Your task to perform on an android device: refresh tabs in the chrome app Image 0: 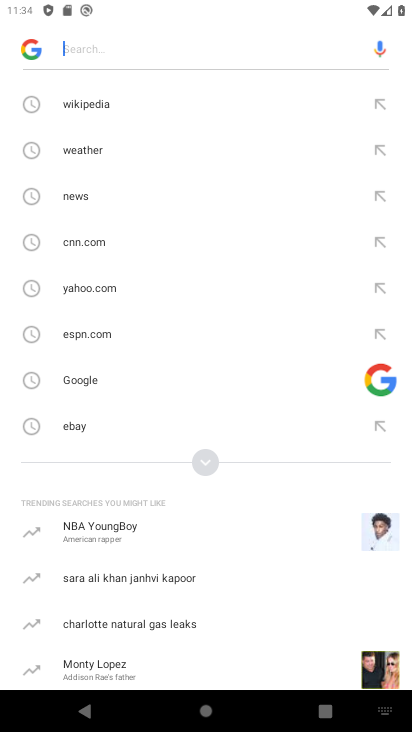
Step 0: press home button
Your task to perform on an android device: refresh tabs in the chrome app Image 1: 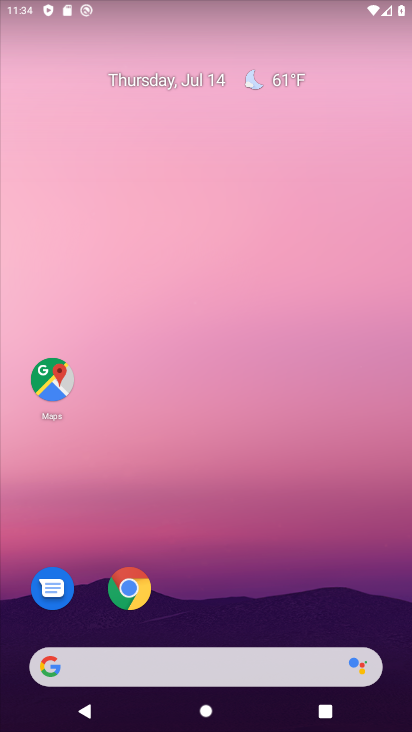
Step 1: click (132, 589)
Your task to perform on an android device: refresh tabs in the chrome app Image 2: 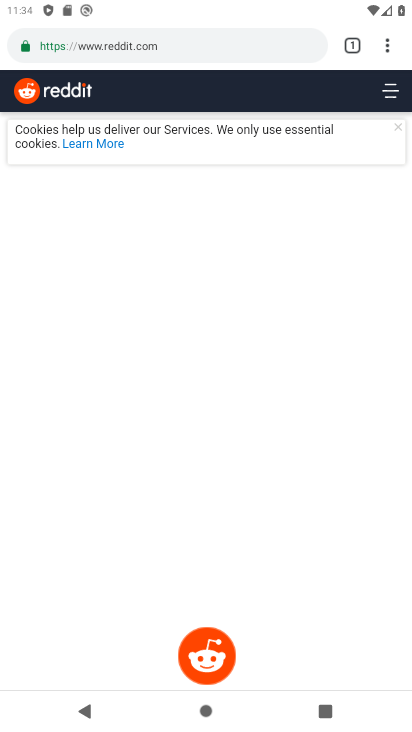
Step 2: click (386, 51)
Your task to perform on an android device: refresh tabs in the chrome app Image 3: 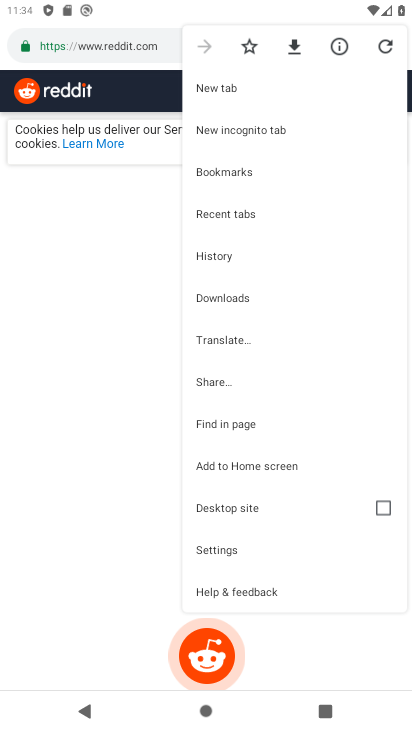
Step 3: click (379, 38)
Your task to perform on an android device: refresh tabs in the chrome app Image 4: 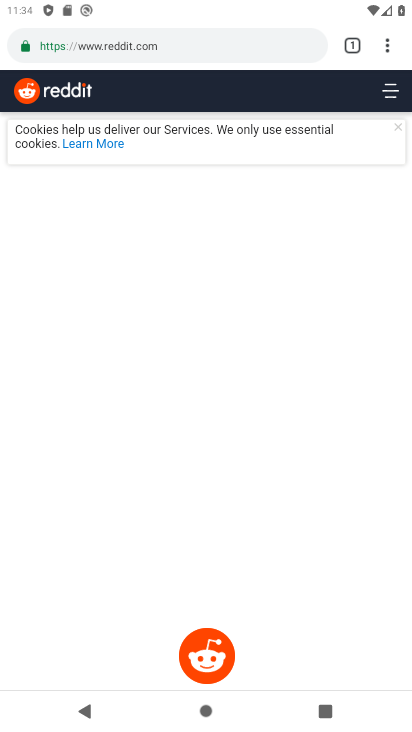
Step 4: task complete